Your task to perform on an android device: Open privacy settings Image 0: 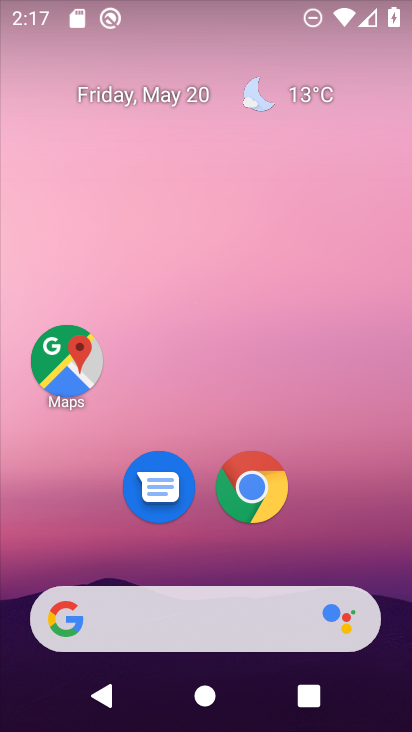
Step 0: press home button
Your task to perform on an android device: Open privacy settings Image 1: 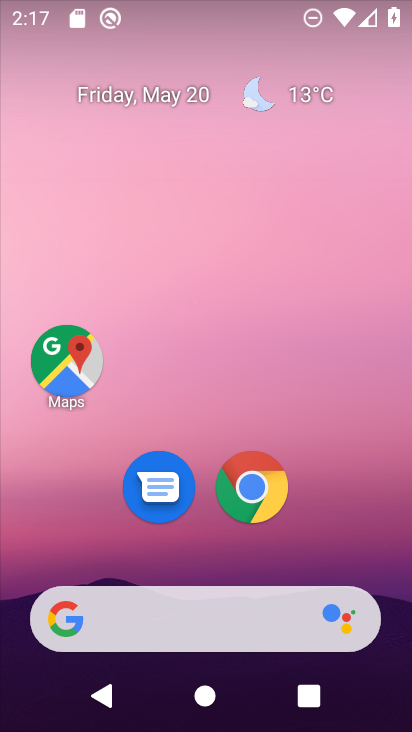
Step 1: drag from (194, 547) to (215, 70)
Your task to perform on an android device: Open privacy settings Image 2: 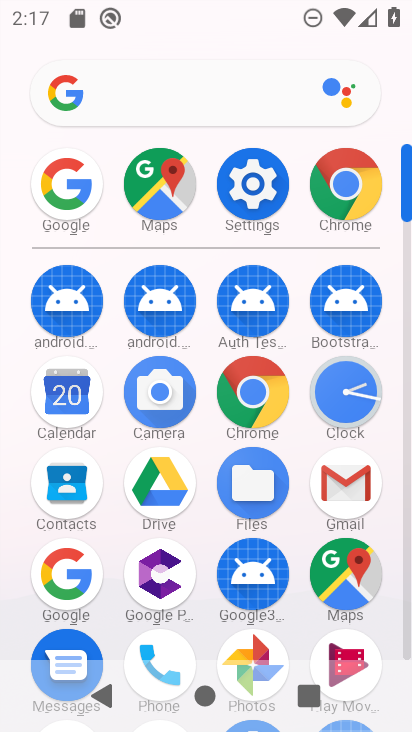
Step 2: click (247, 183)
Your task to perform on an android device: Open privacy settings Image 3: 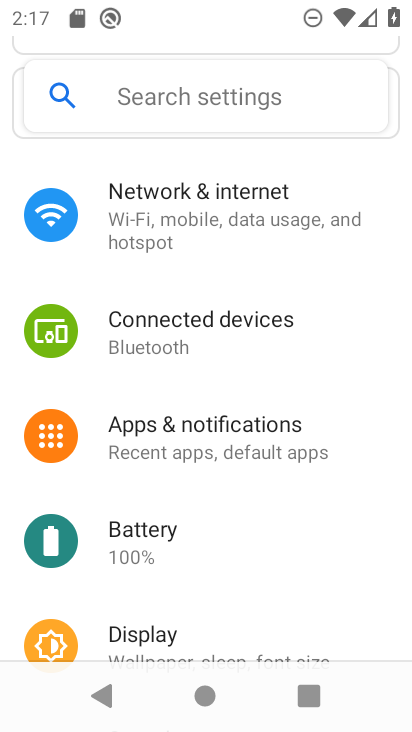
Step 3: drag from (198, 598) to (220, 351)
Your task to perform on an android device: Open privacy settings Image 4: 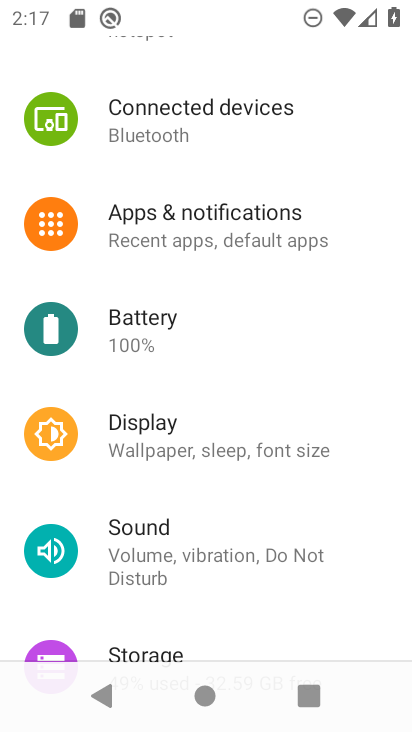
Step 4: drag from (209, 614) to (223, 395)
Your task to perform on an android device: Open privacy settings Image 5: 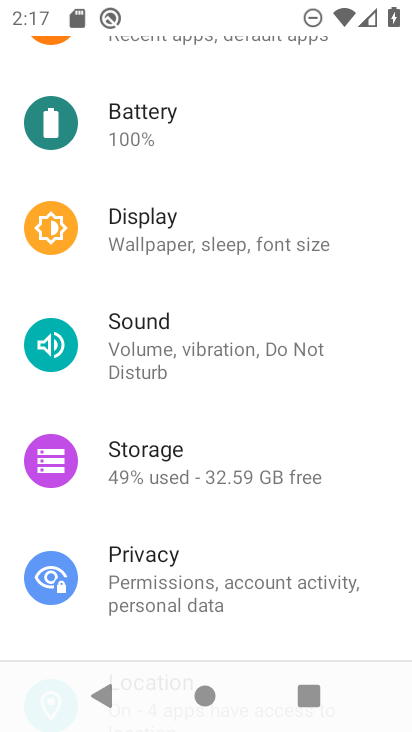
Step 5: click (209, 564)
Your task to perform on an android device: Open privacy settings Image 6: 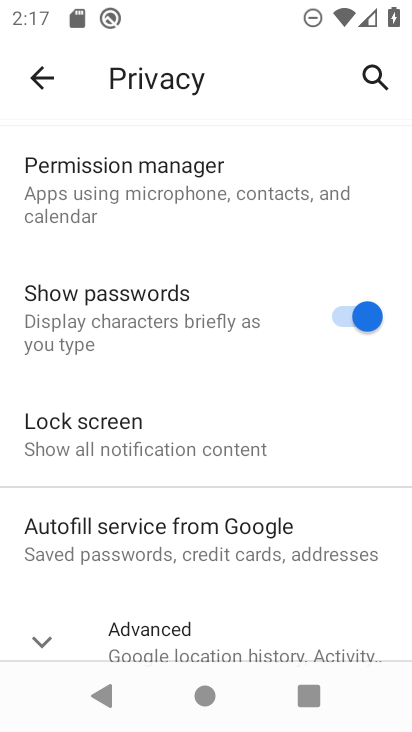
Step 6: click (54, 633)
Your task to perform on an android device: Open privacy settings Image 7: 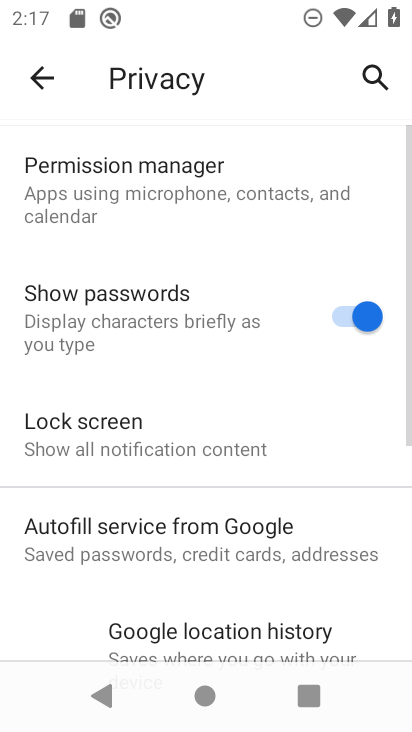
Step 7: task complete